Your task to perform on an android device: Go to Maps Image 0: 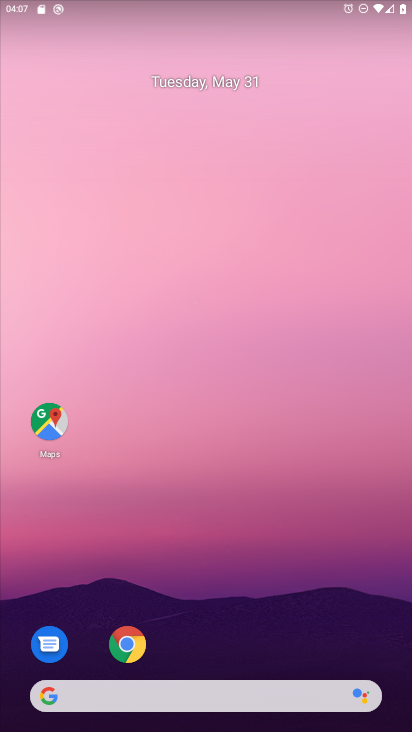
Step 0: click (47, 424)
Your task to perform on an android device: Go to Maps Image 1: 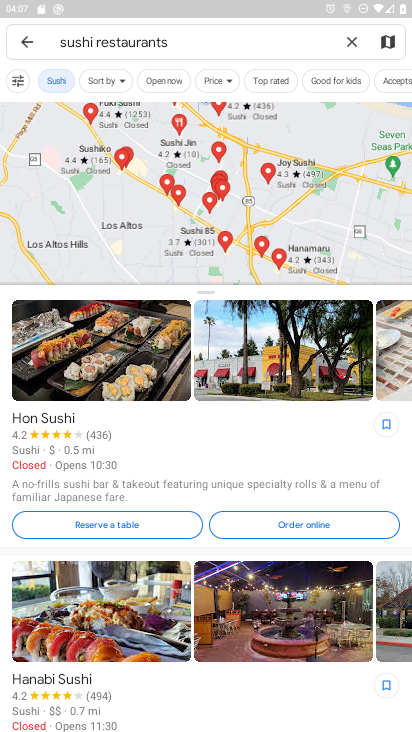
Step 1: task complete